Your task to perform on an android device: turn vacation reply on in the gmail app Image 0: 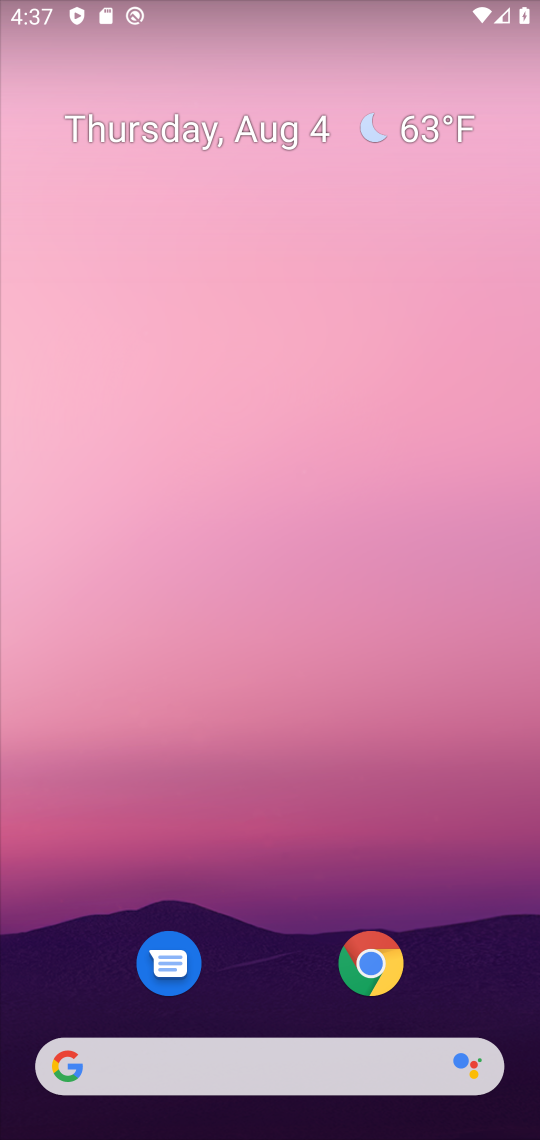
Step 0: drag from (304, 884) to (257, 47)
Your task to perform on an android device: turn vacation reply on in the gmail app Image 1: 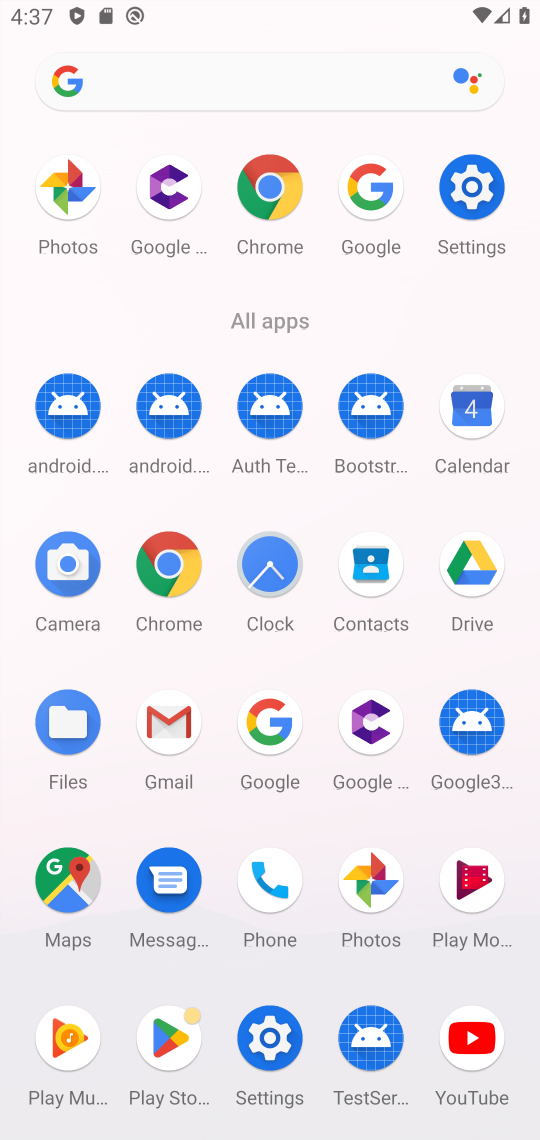
Step 1: click (173, 716)
Your task to perform on an android device: turn vacation reply on in the gmail app Image 2: 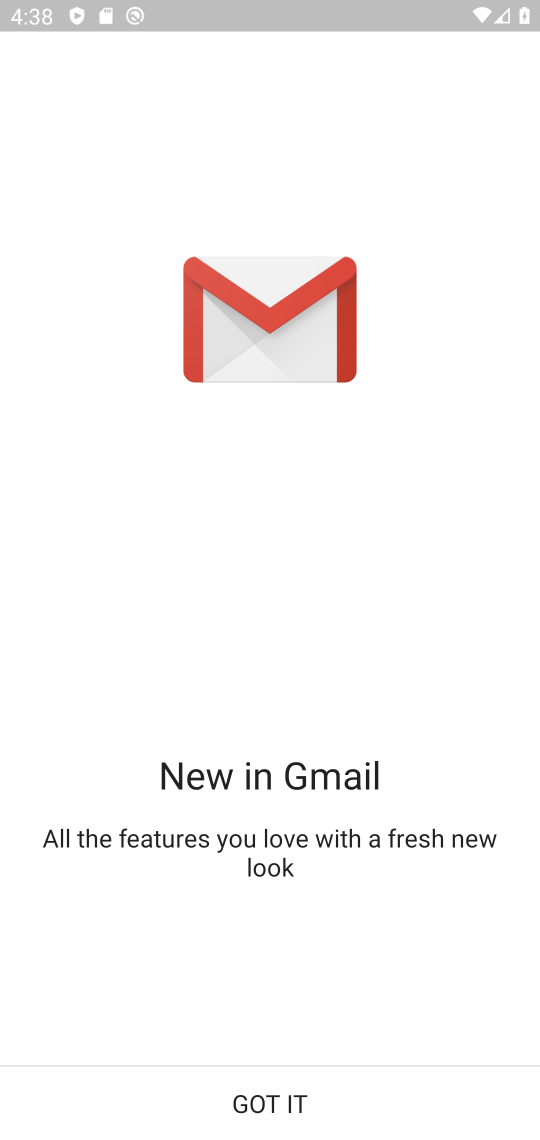
Step 2: click (288, 1099)
Your task to perform on an android device: turn vacation reply on in the gmail app Image 3: 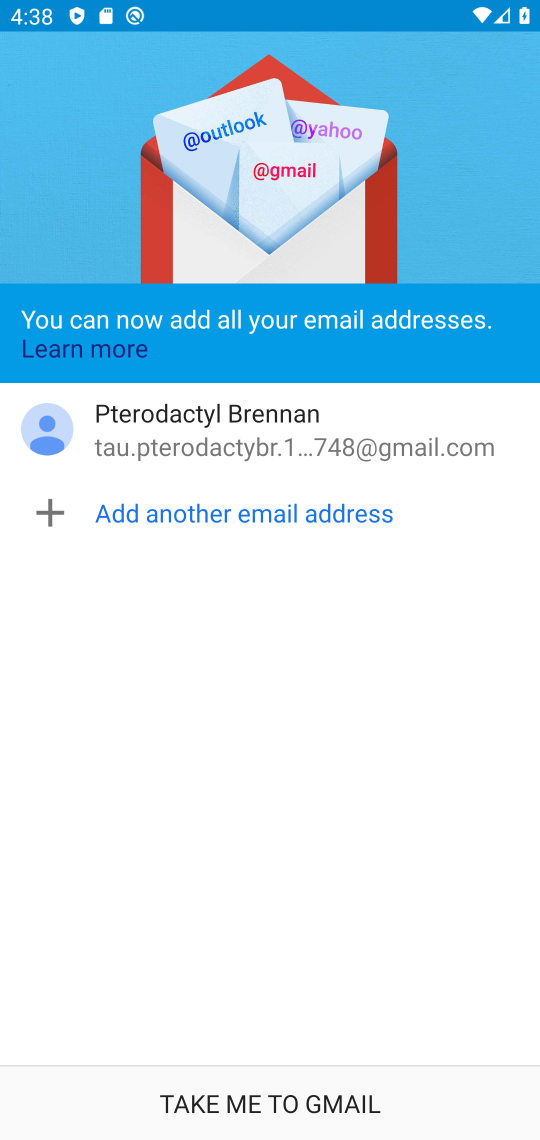
Step 3: click (255, 1081)
Your task to perform on an android device: turn vacation reply on in the gmail app Image 4: 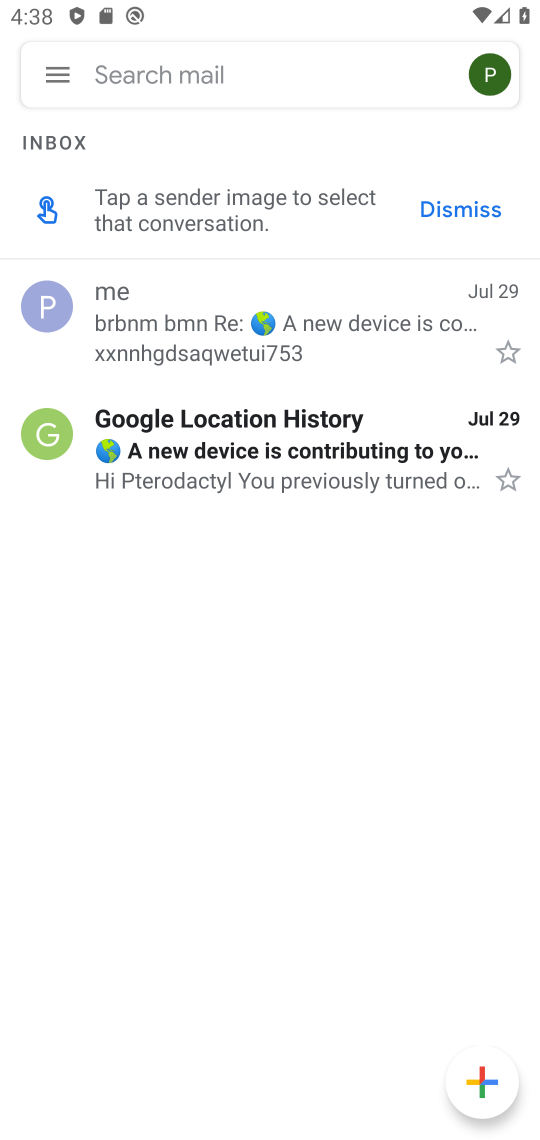
Step 4: click (52, 72)
Your task to perform on an android device: turn vacation reply on in the gmail app Image 5: 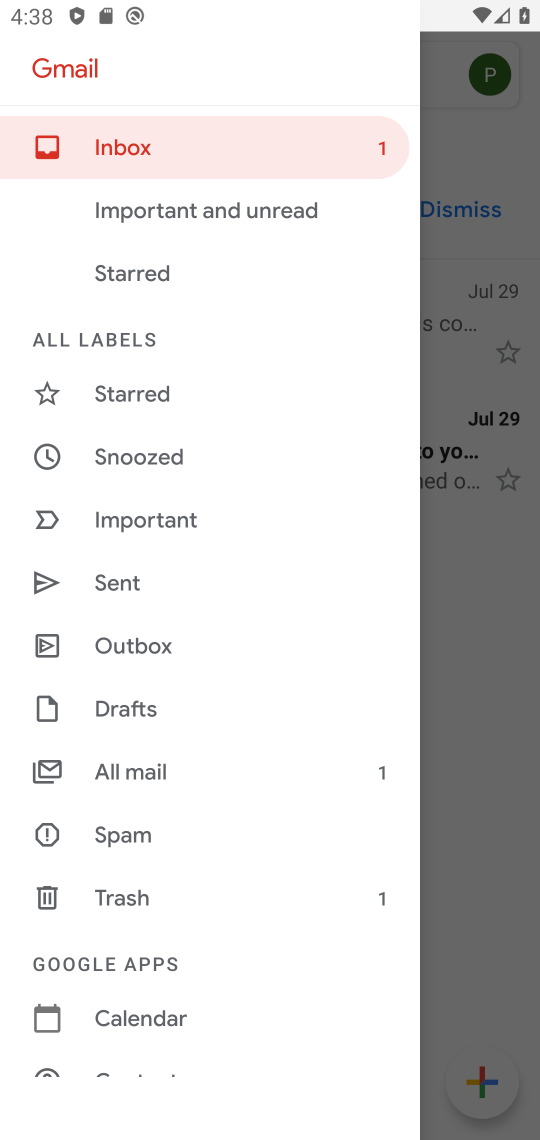
Step 5: drag from (212, 952) to (202, 352)
Your task to perform on an android device: turn vacation reply on in the gmail app Image 6: 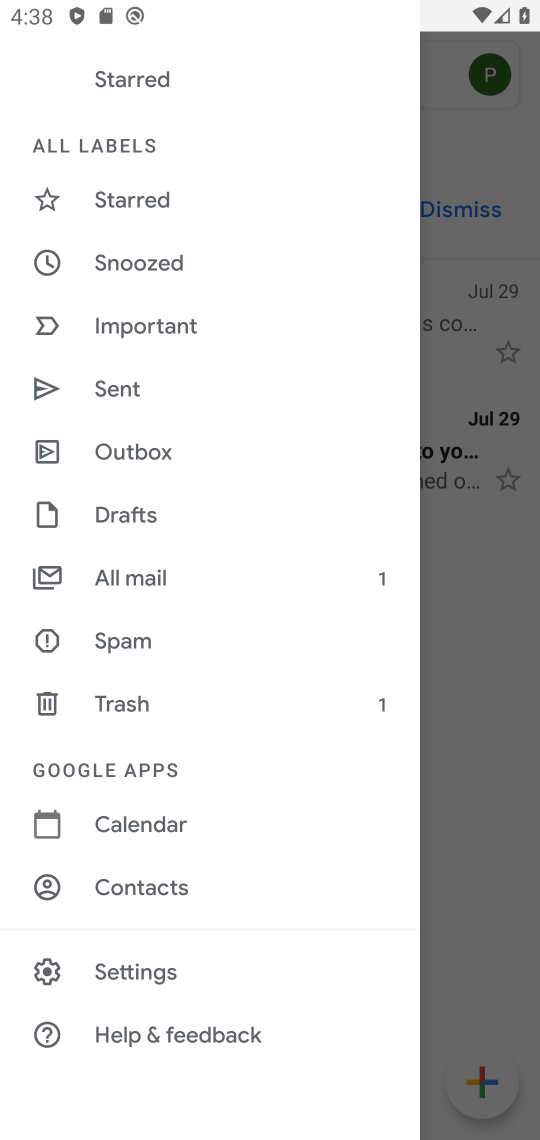
Step 6: click (137, 969)
Your task to perform on an android device: turn vacation reply on in the gmail app Image 7: 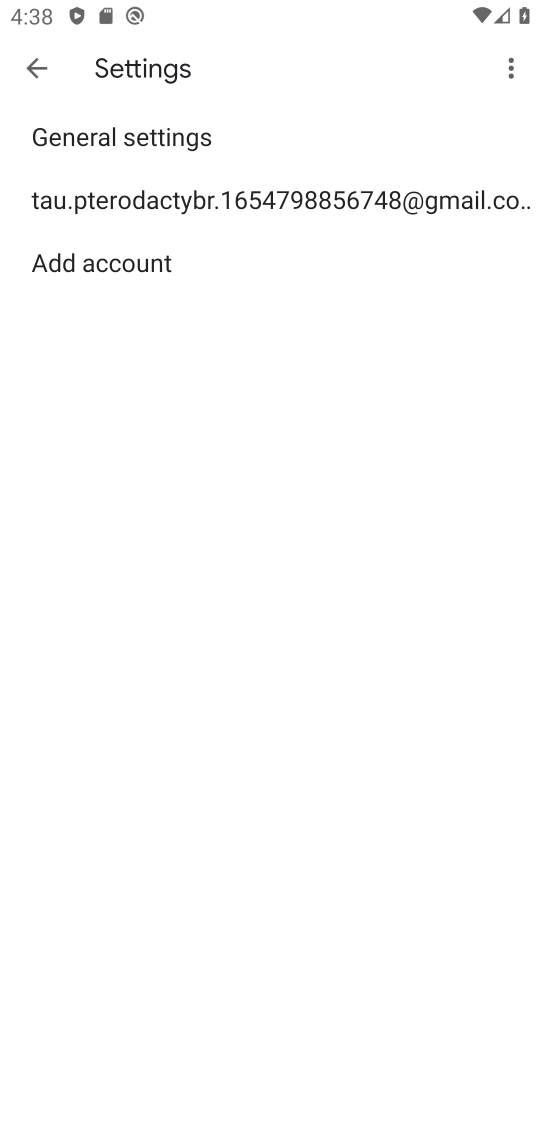
Step 7: click (134, 198)
Your task to perform on an android device: turn vacation reply on in the gmail app Image 8: 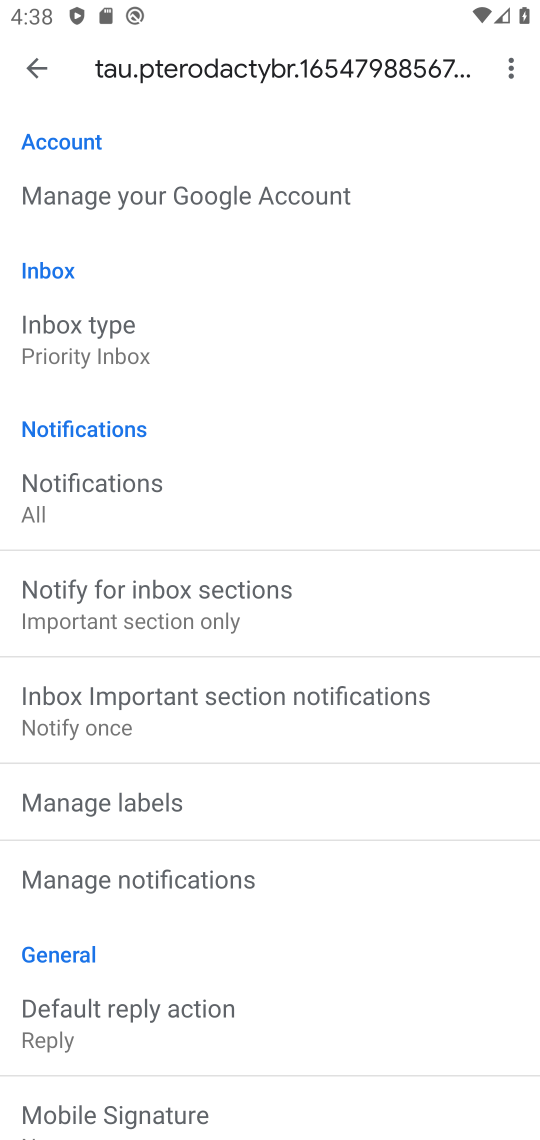
Step 8: task complete